Your task to perform on an android device: check storage Image 0: 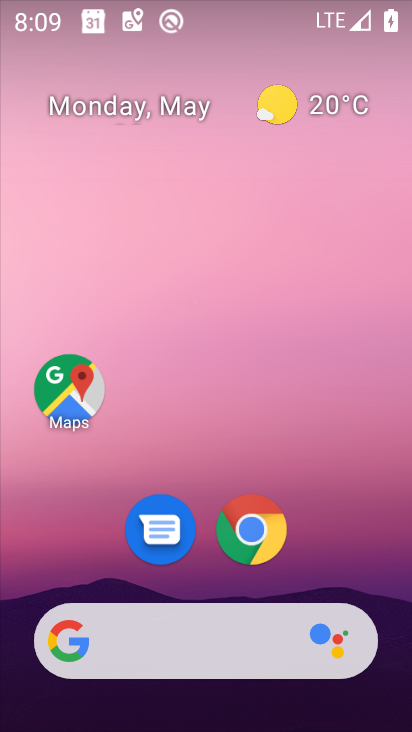
Step 0: drag from (43, 607) to (318, 271)
Your task to perform on an android device: check storage Image 1: 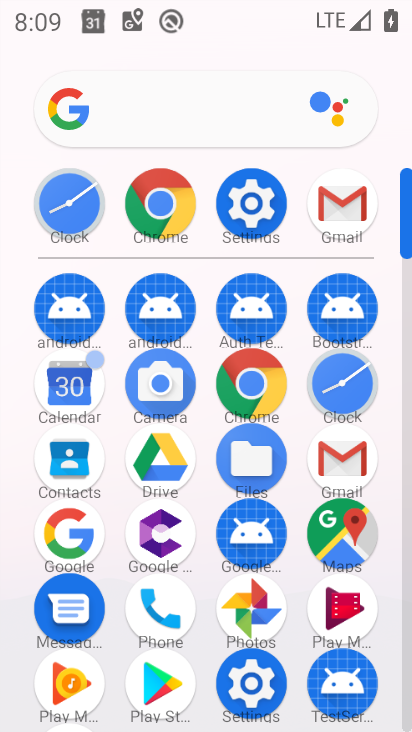
Step 1: click (261, 187)
Your task to perform on an android device: check storage Image 2: 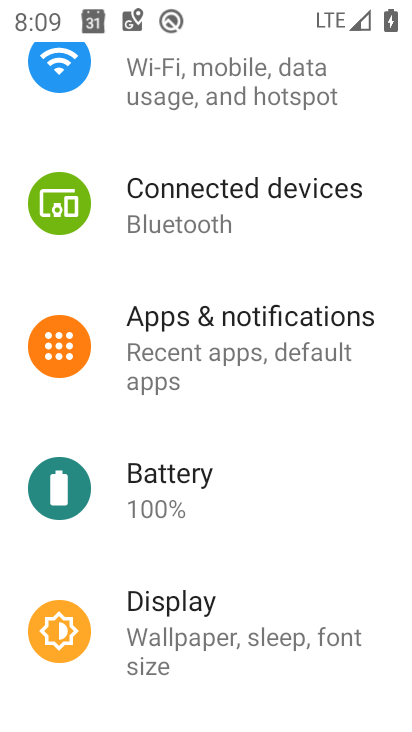
Step 2: drag from (6, 386) to (127, 238)
Your task to perform on an android device: check storage Image 3: 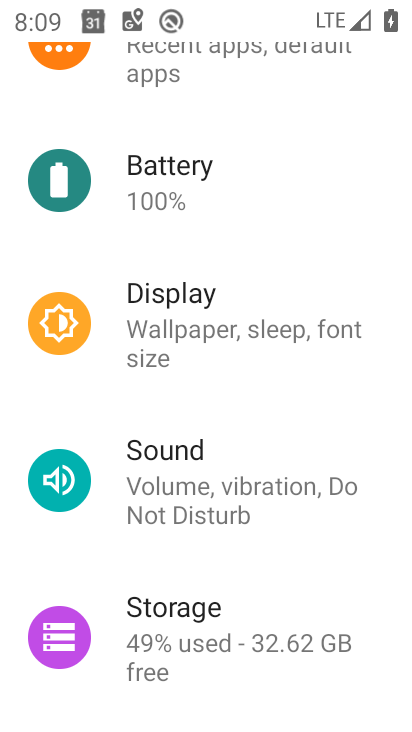
Step 3: click (156, 645)
Your task to perform on an android device: check storage Image 4: 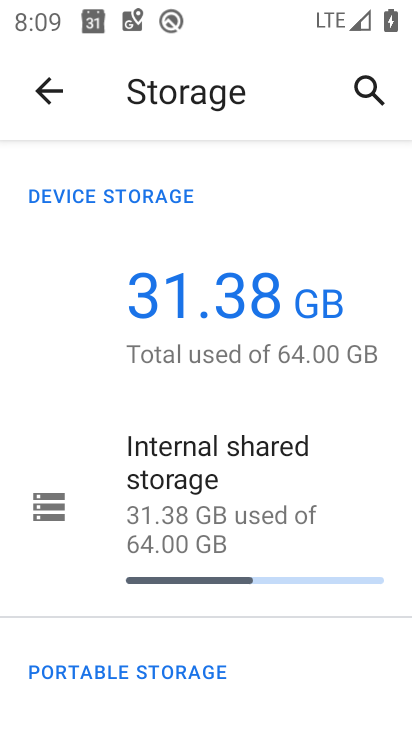
Step 4: task complete